Your task to perform on an android device: Open accessibility settings Image 0: 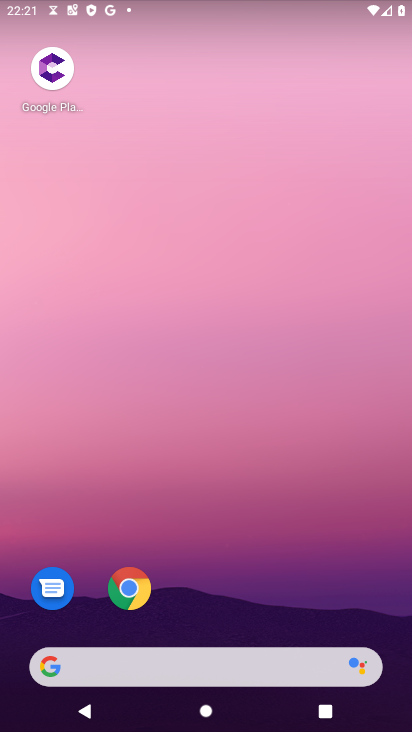
Step 0: drag from (180, 663) to (217, 105)
Your task to perform on an android device: Open accessibility settings Image 1: 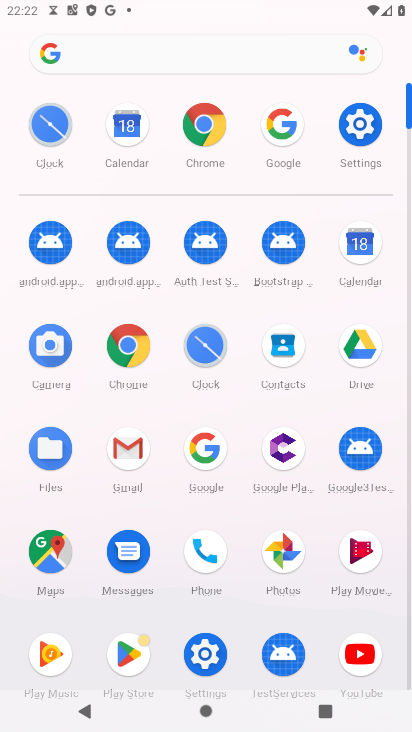
Step 1: click (361, 124)
Your task to perform on an android device: Open accessibility settings Image 2: 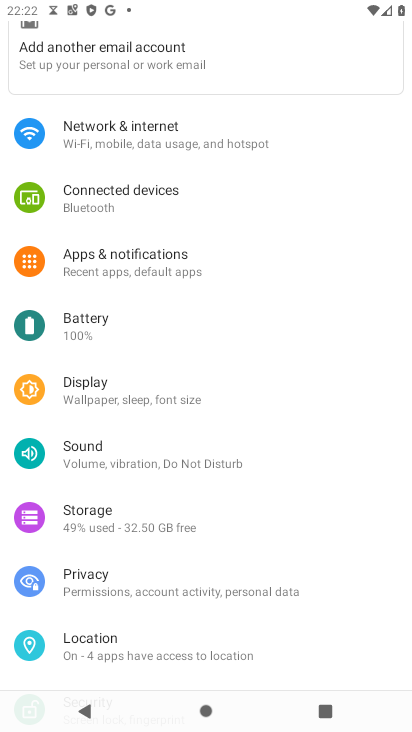
Step 2: drag from (145, 488) to (182, 389)
Your task to perform on an android device: Open accessibility settings Image 3: 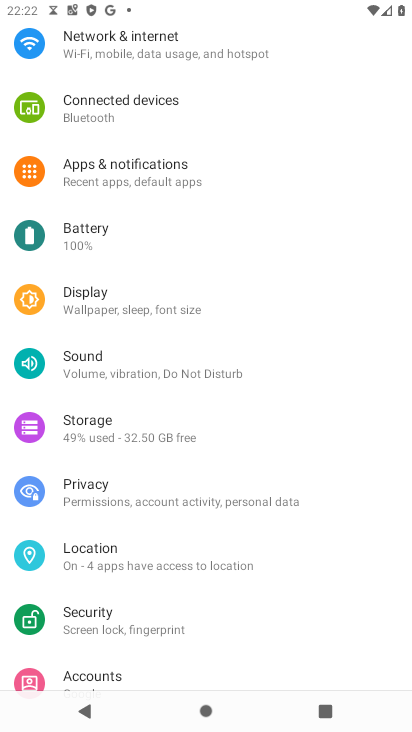
Step 3: drag from (146, 540) to (205, 455)
Your task to perform on an android device: Open accessibility settings Image 4: 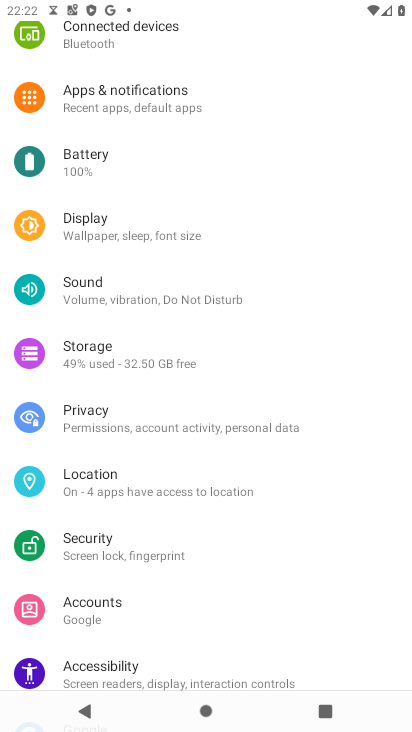
Step 4: drag from (143, 514) to (209, 412)
Your task to perform on an android device: Open accessibility settings Image 5: 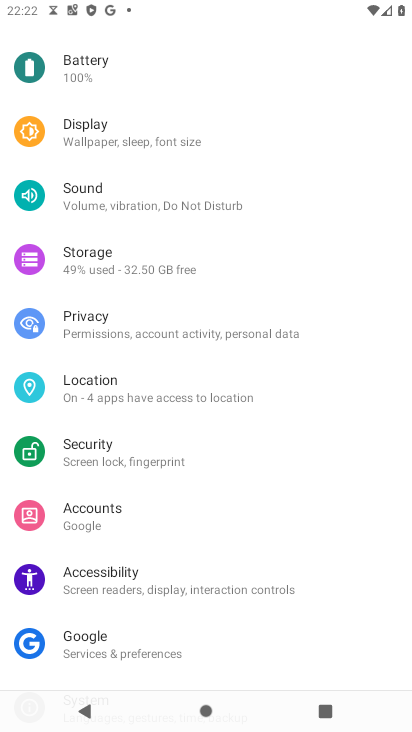
Step 5: click (103, 589)
Your task to perform on an android device: Open accessibility settings Image 6: 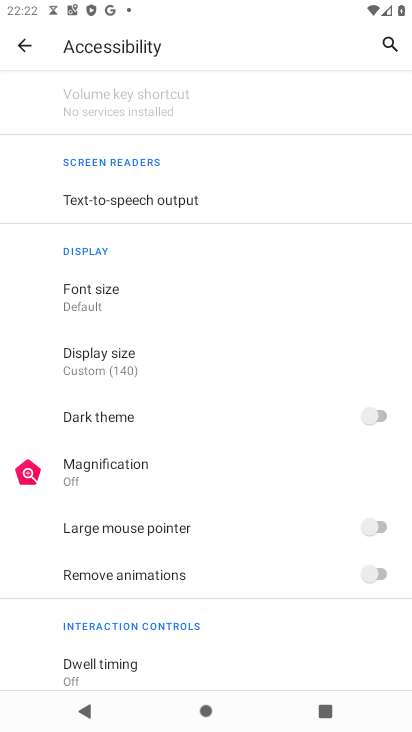
Step 6: task complete